Your task to perform on an android device: turn off wifi Image 0: 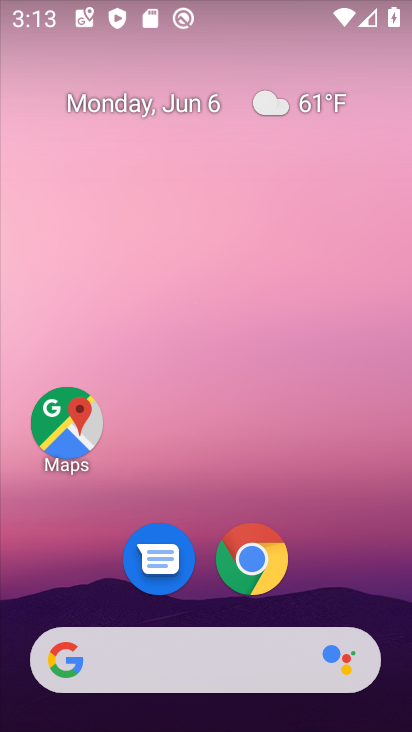
Step 0: drag from (205, 584) to (169, 57)
Your task to perform on an android device: turn off wifi Image 1: 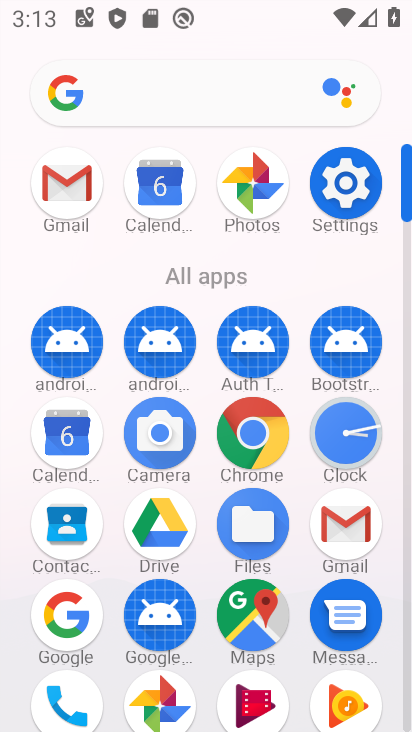
Step 1: click (355, 177)
Your task to perform on an android device: turn off wifi Image 2: 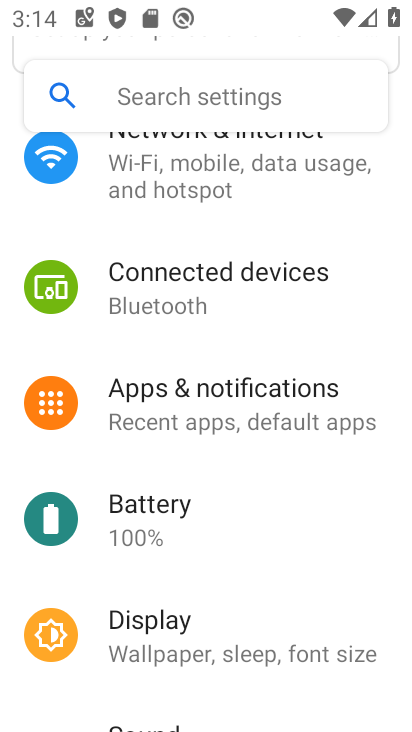
Step 2: drag from (199, 193) to (209, 440)
Your task to perform on an android device: turn off wifi Image 3: 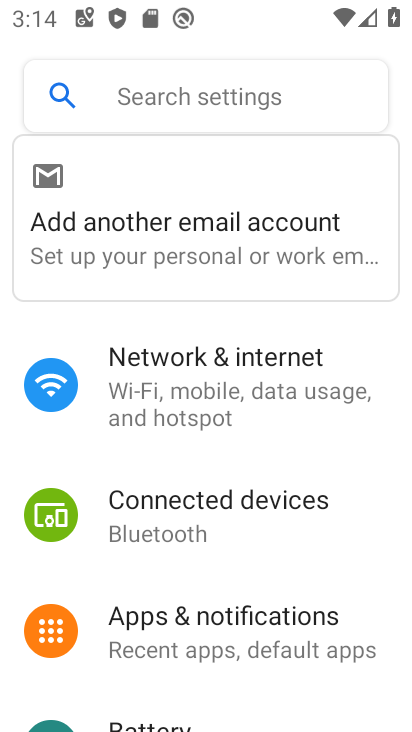
Step 3: click (187, 372)
Your task to perform on an android device: turn off wifi Image 4: 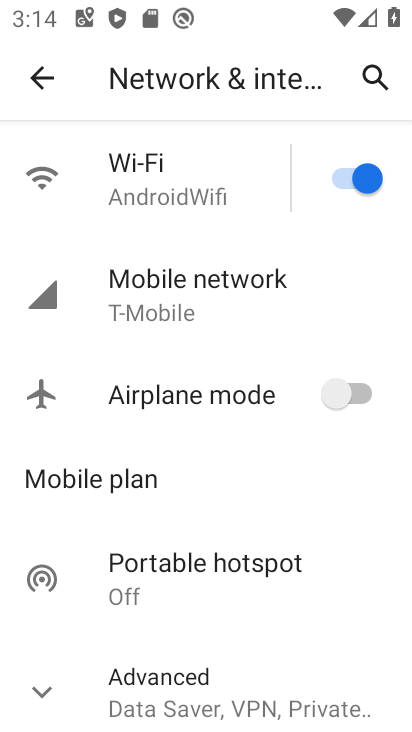
Step 4: click (213, 203)
Your task to perform on an android device: turn off wifi Image 5: 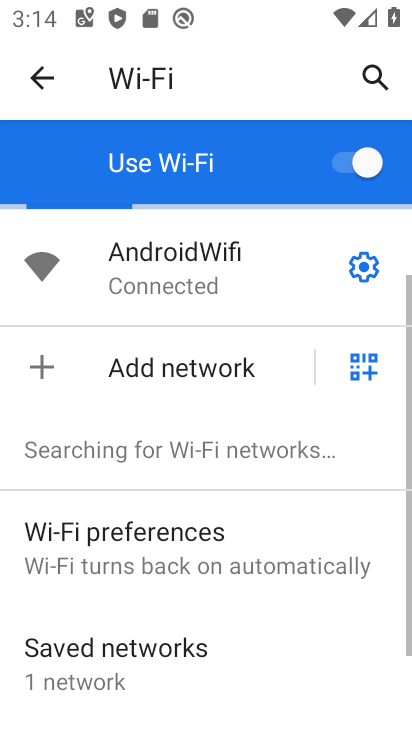
Step 5: click (338, 161)
Your task to perform on an android device: turn off wifi Image 6: 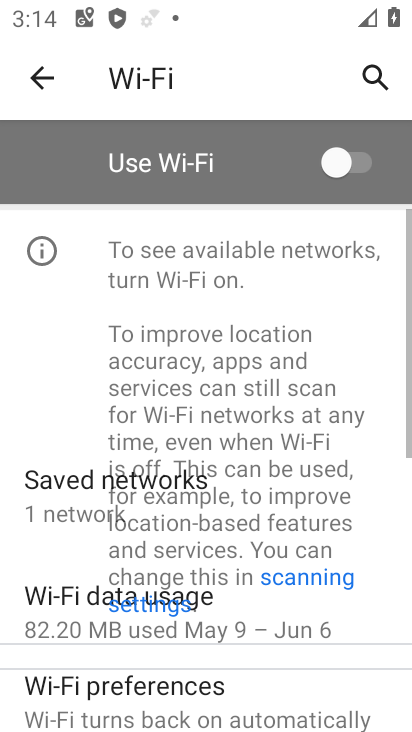
Step 6: task complete